Your task to perform on an android device: Empty the shopping cart on target. Add usb-c to the cart on target, then select checkout. Image 0: 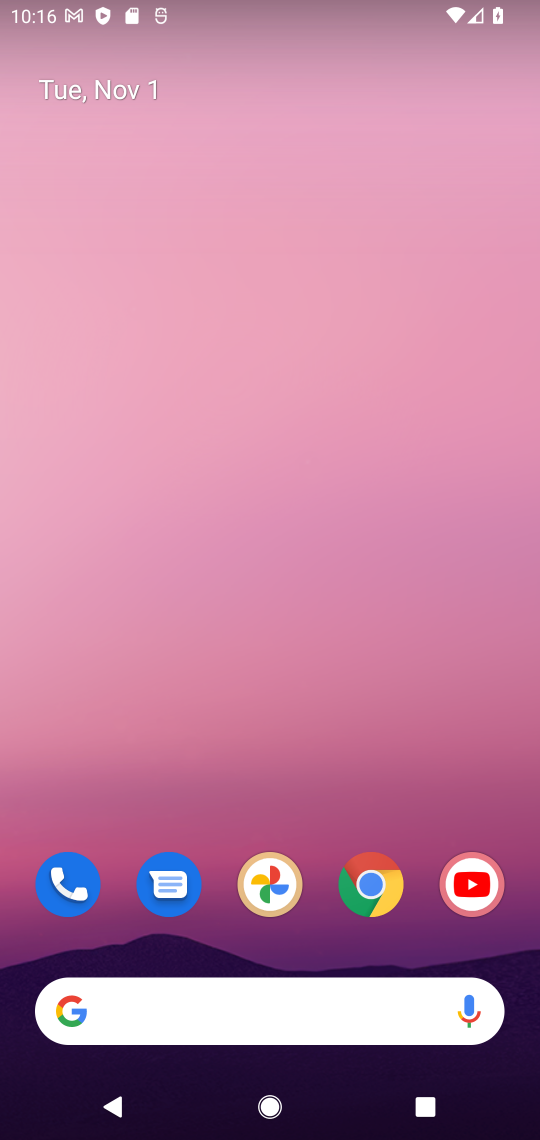
Step 0: click (380, 893)
Your task to perform on an android device: Empty the shopping cart on target. Add usb-c to the cart on target, then select checkout. Image 1: 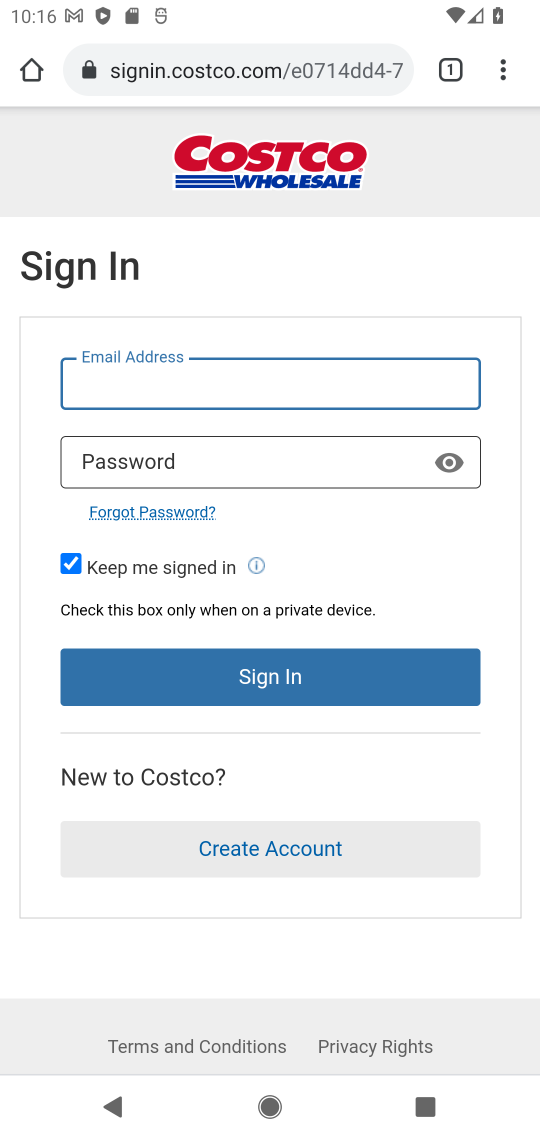
Step 1: click (243, 72)
Your task to perform on an android device: Empty the shopping cart on target. Add usb-c to the cart on target, then select checkout. Image 2: 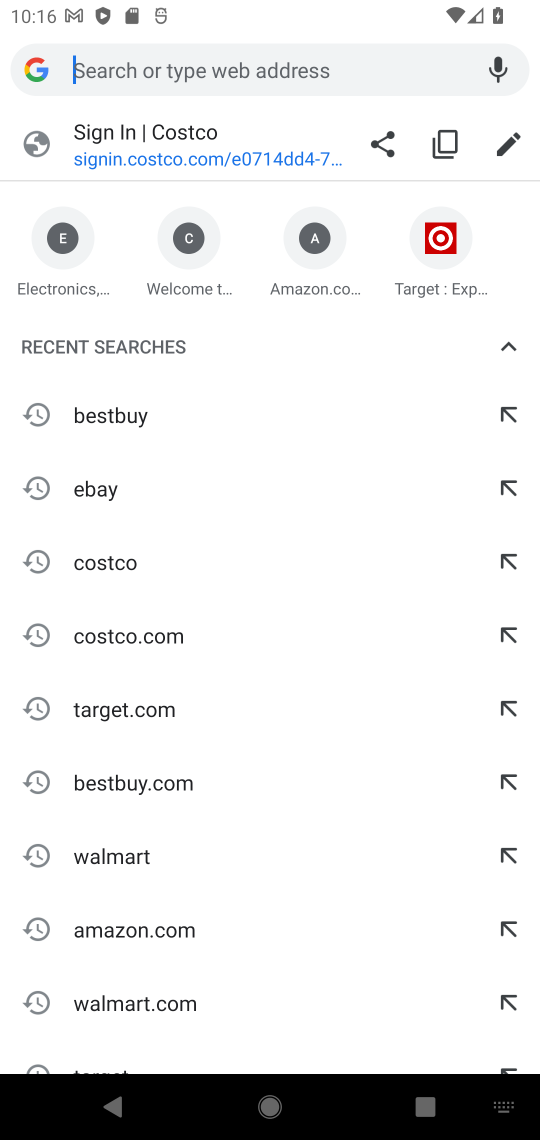
Step 2: type "target"
Your task to perform on an android device: Empty the shopping cart on target. Add usb-c to the cart on target, then select checkout. Image 3: 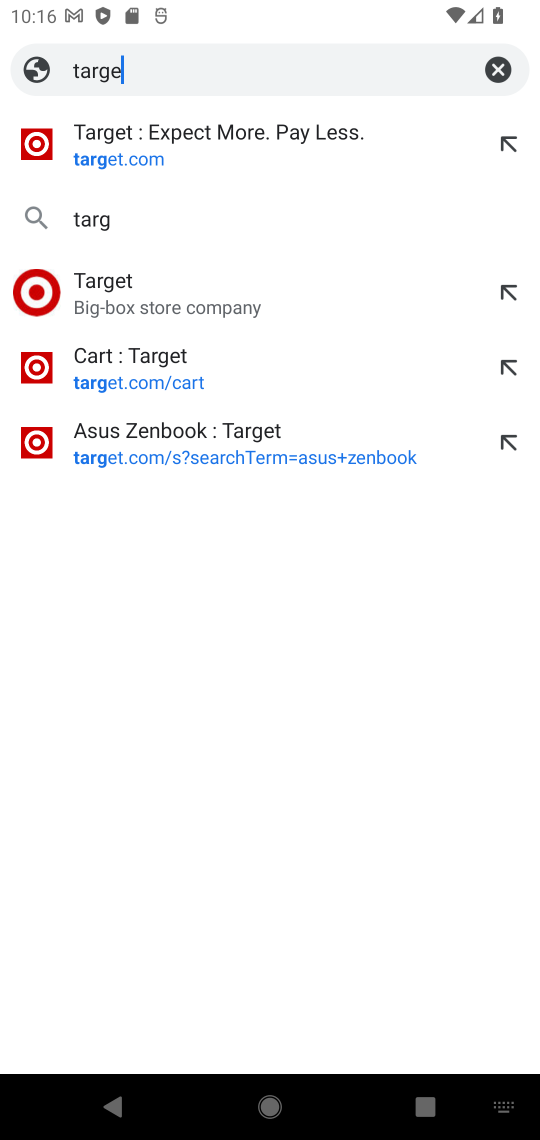
Step 3: type ""
Your task to perform on an android device: Empty the shopping cart on target. Add usb-c to the cart on target, then select checkout. Image 4: 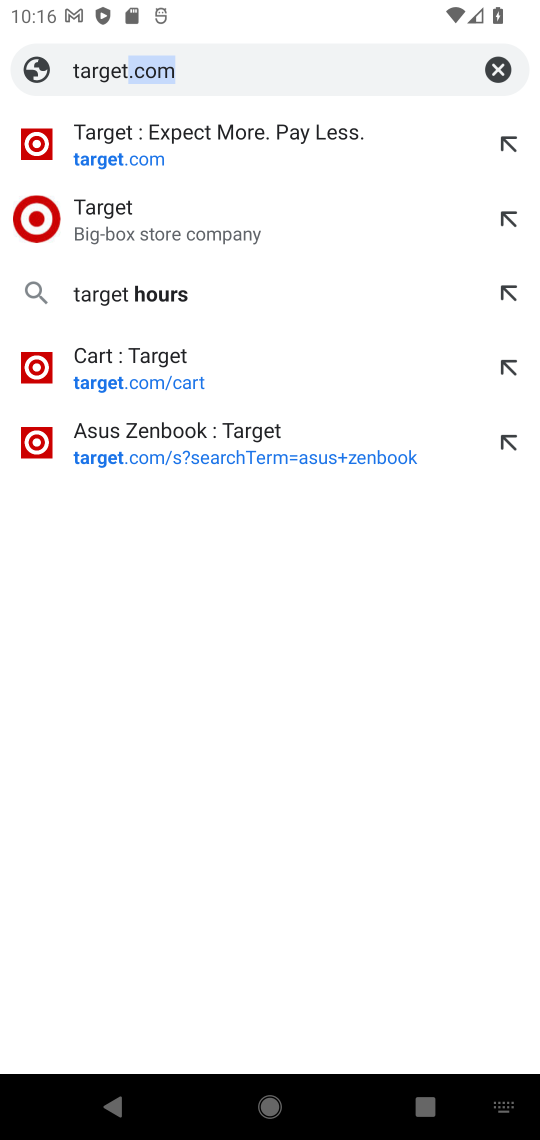
Step 4: press enter
Your task to perform on an android device: Empty the shopping cart on target. Add usb-c to the cart on target, then select checkout. Image 5: 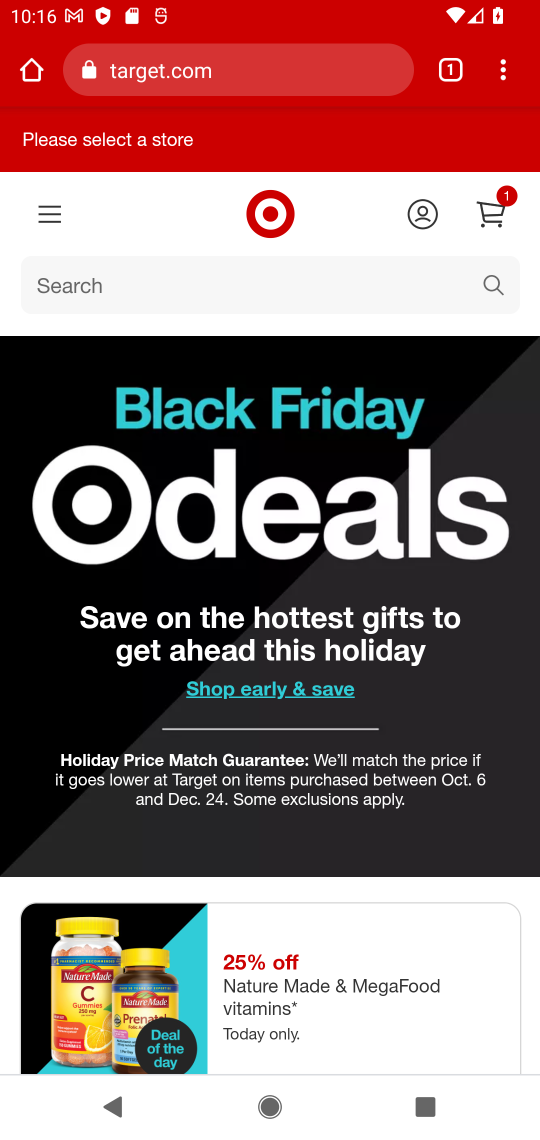
Step 5: click (490, 211)
Your task to perform on an android device: Empty the shopping cart on target. Add usb-c to the cart on target, then select checkout. Image 6: 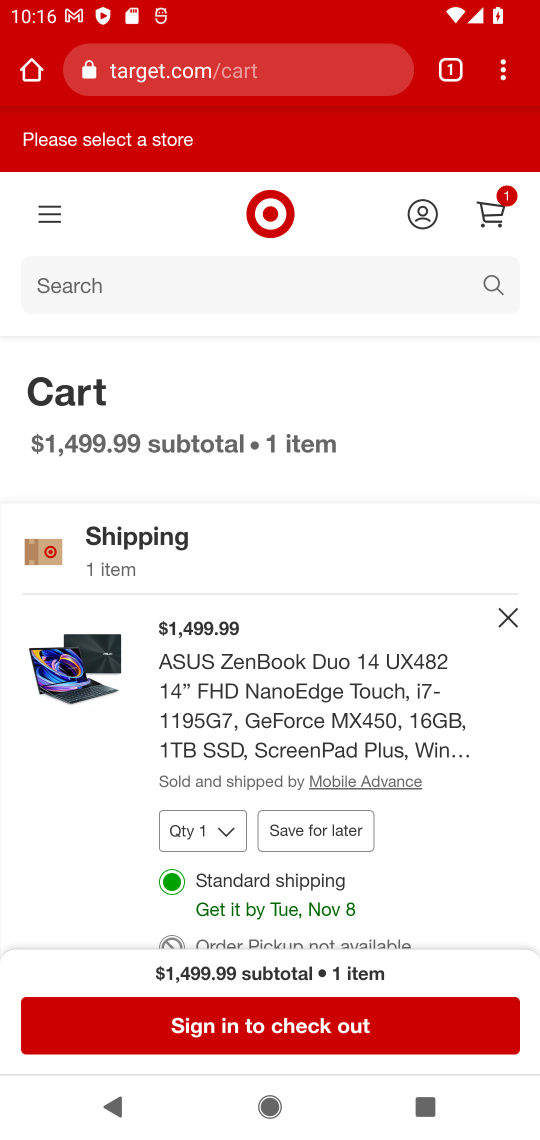
Step 6: click (494, 621)
Your task to perform on an android device: Empty the shopping cart on target. Add usb-c to the cart on target, then select checkout. Image 7: 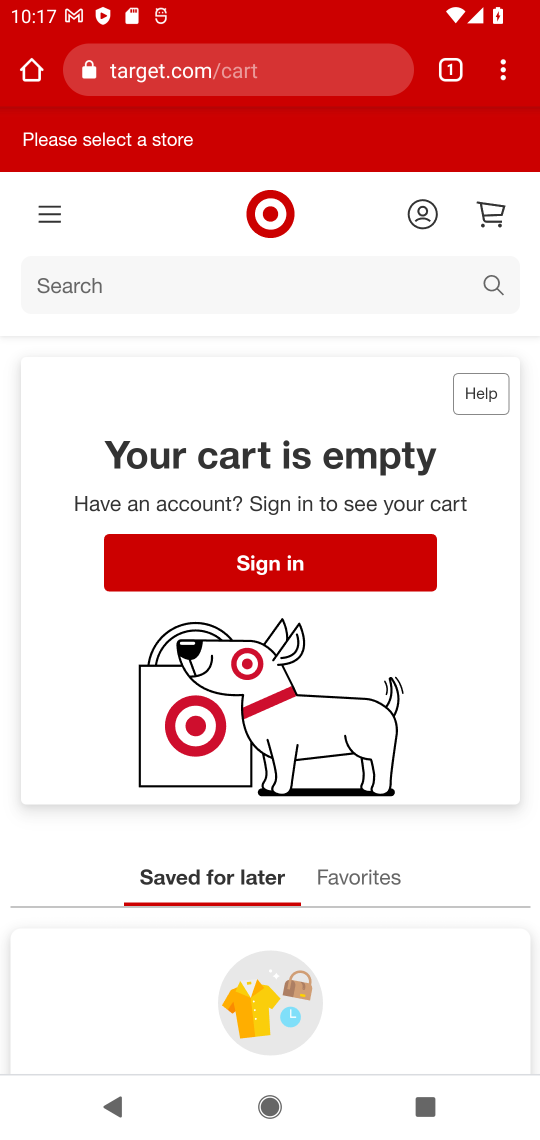
Step 7: click (244, 293)
Your task to perform on an android device: Empty the shopping cart on target. Add usb-c to the cart on target, then select checkout. Image 8: 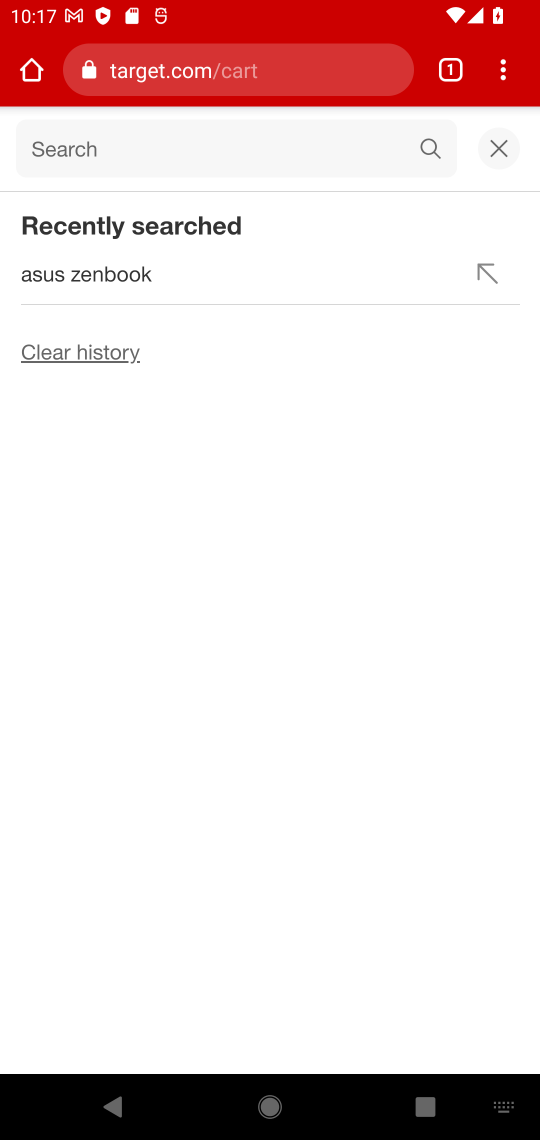
Step 8: type "usb-c"
Your task to perform on an android device: Empty the shopping cart on target. Add usb-c to the cart on target, then select checkout. Image 9: 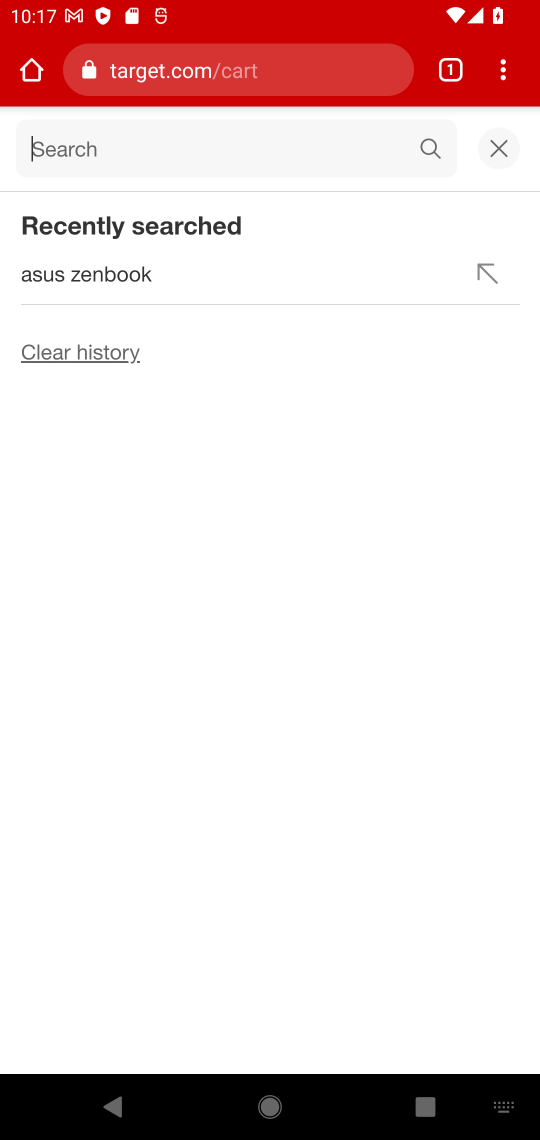
Step 9: type ""
Your task to perform on an android device: Empty the shopping cart on target. Add usb-c to the cart on target, then select checkout. Image 10: 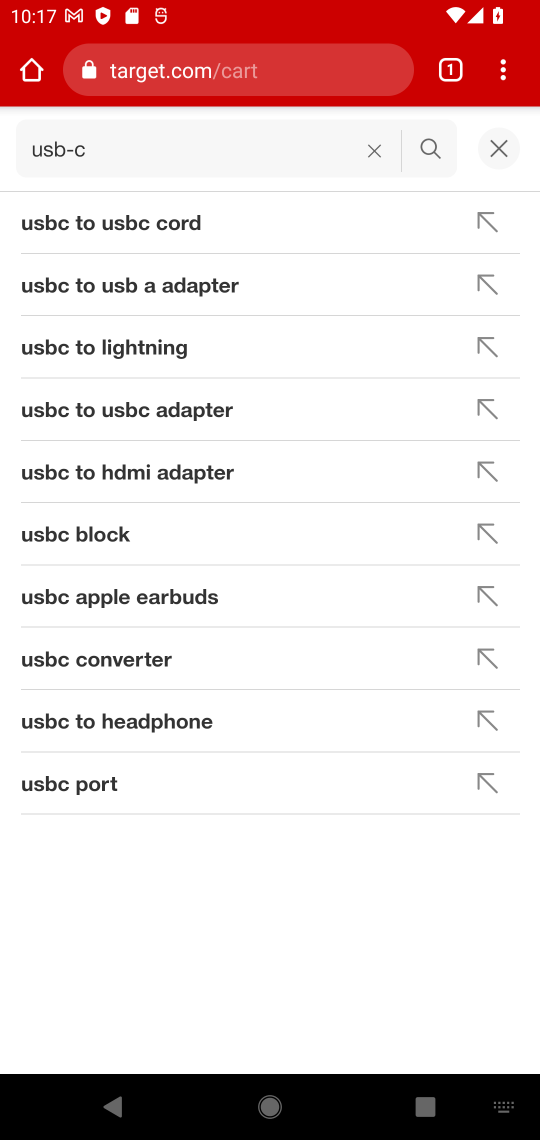
Step 10: press enter
Your task to perform on an android device: Empty the shopping cart on target. Add usb-c to the cart on target, then select checkout. Image 11: 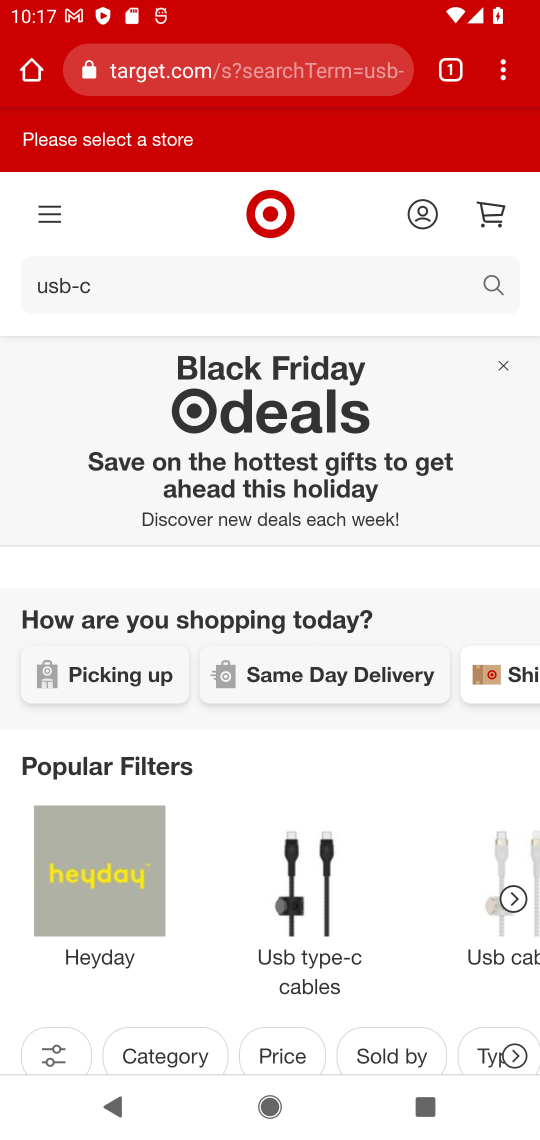
Step 11: drag from (226, 814) to (278, 296)
Your task to perform on an android device: Empty the shopping cart on target. Add usb-c to the cart on target, then select checkout. Image 12: 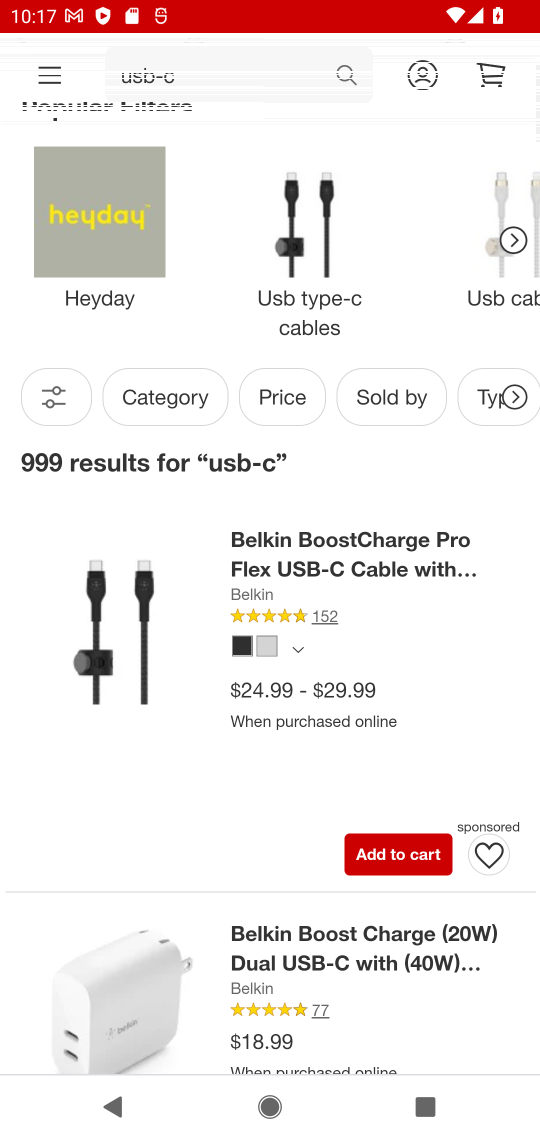
Step 12: click (386, 581)
Your task to perform on an android device: Empty the shopping cart on target. Add usb-c to the cart on target, then select checkout. Image 13: 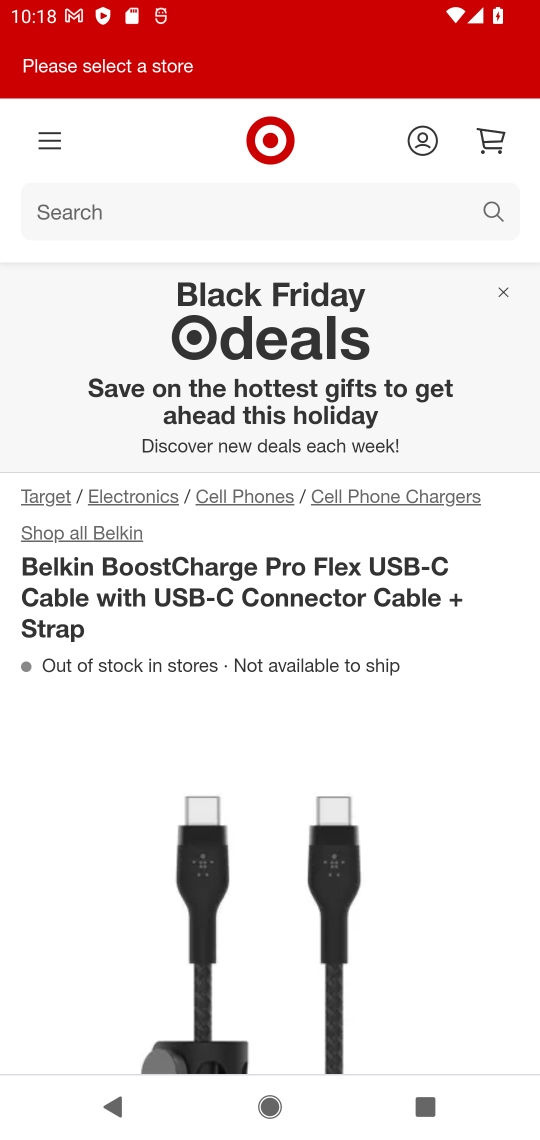
Step 13: drag from (435, 881) to (393, 306)
Your task to perform on an android device: Empty the shopping cart on target. Add usb-c to the cart on target, then select checkout. Image 14: 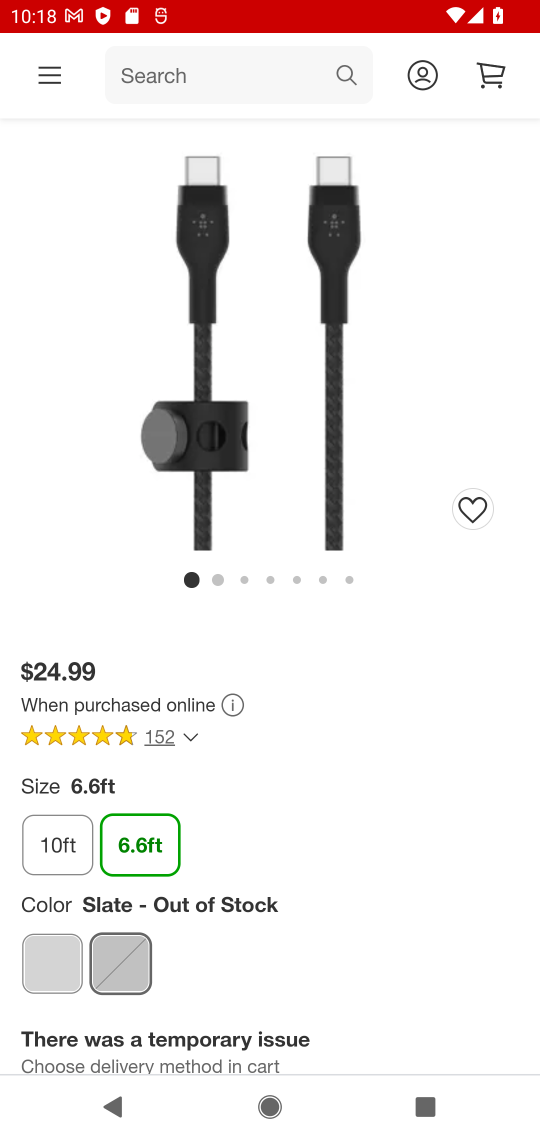
Step 14: drag from (373, 846) to (361, 614)
Your task to perform on an android device: Empty the shopping cart on target. Add usb-c to the cart on target, then select checkout. Image 15: 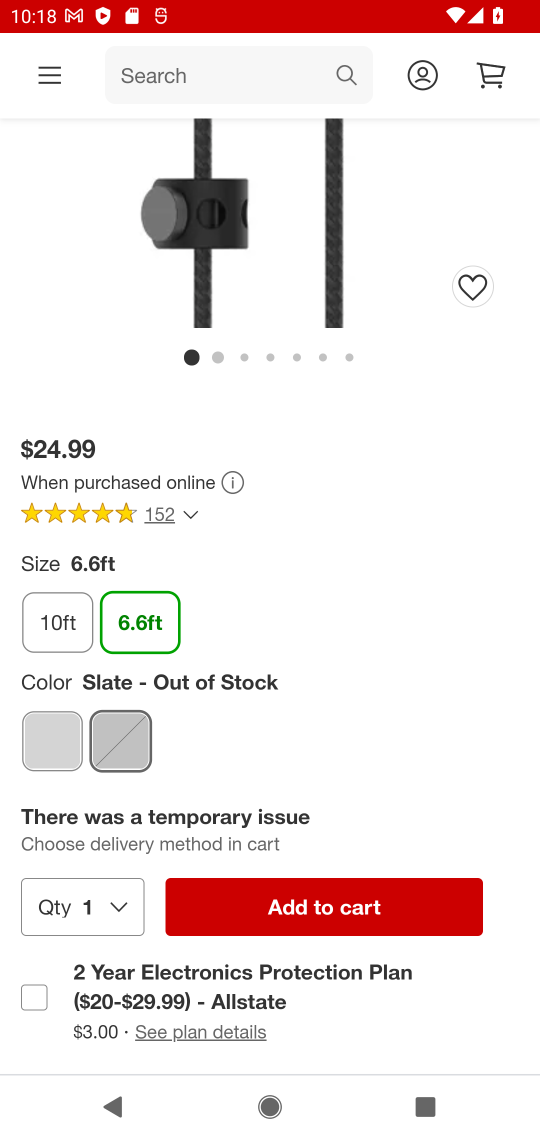
Step 15: click (404, 911)
Your task to perform on an android device: Empty the shopping cart on target. Add usb-c to the cart on target, then select checkout. Image 16: 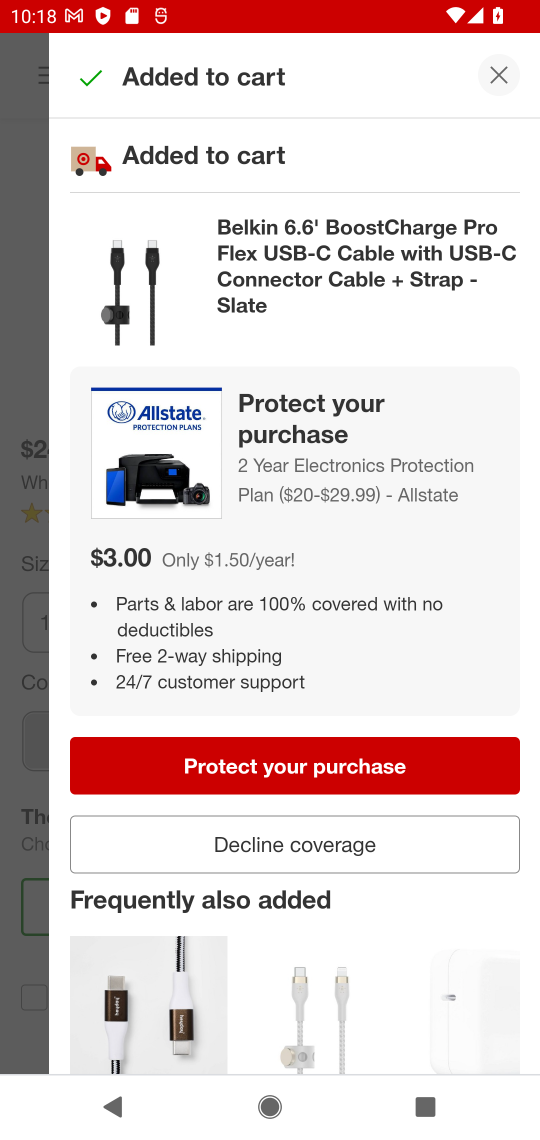
Step 16: click (342, 847)
Your task to perform on an android device: Empty the shopping cart on target. Add usb-c to the cart on target, then select checkout. Image 17: 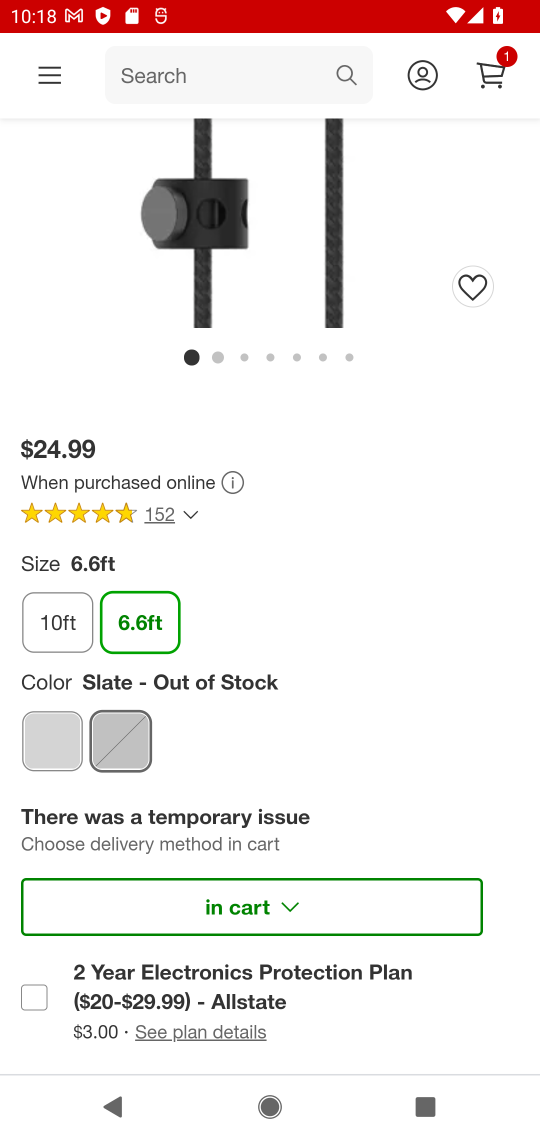
Step 17: click (499, 73)
Your task to perform on an android device: Empty the shopping cart on target. Add usb-c to the cart on target, then select checkout. Image 18: 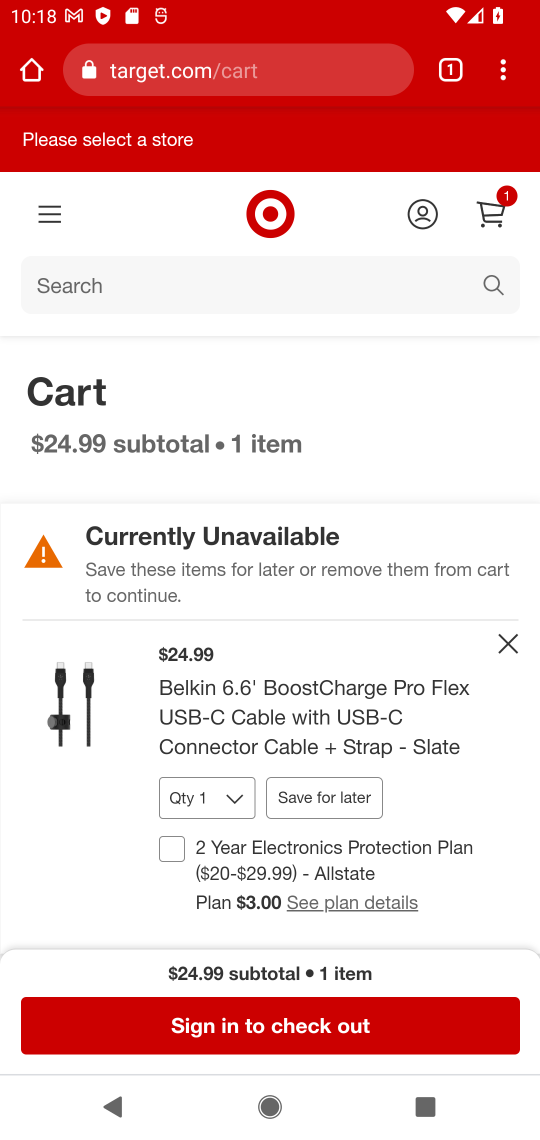
Step 18: task complete